Your task to perform on an android device: Go to Google maps Image 0: 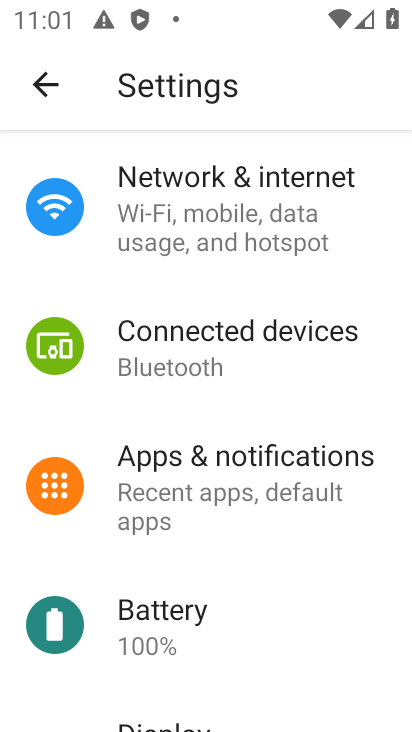
Step 0: task complete